Your task to perform on an android device: Clear the shopping cart on ebay.com. Add logitech g910 to the cart on ebay.com, then select checkout. Image 0: 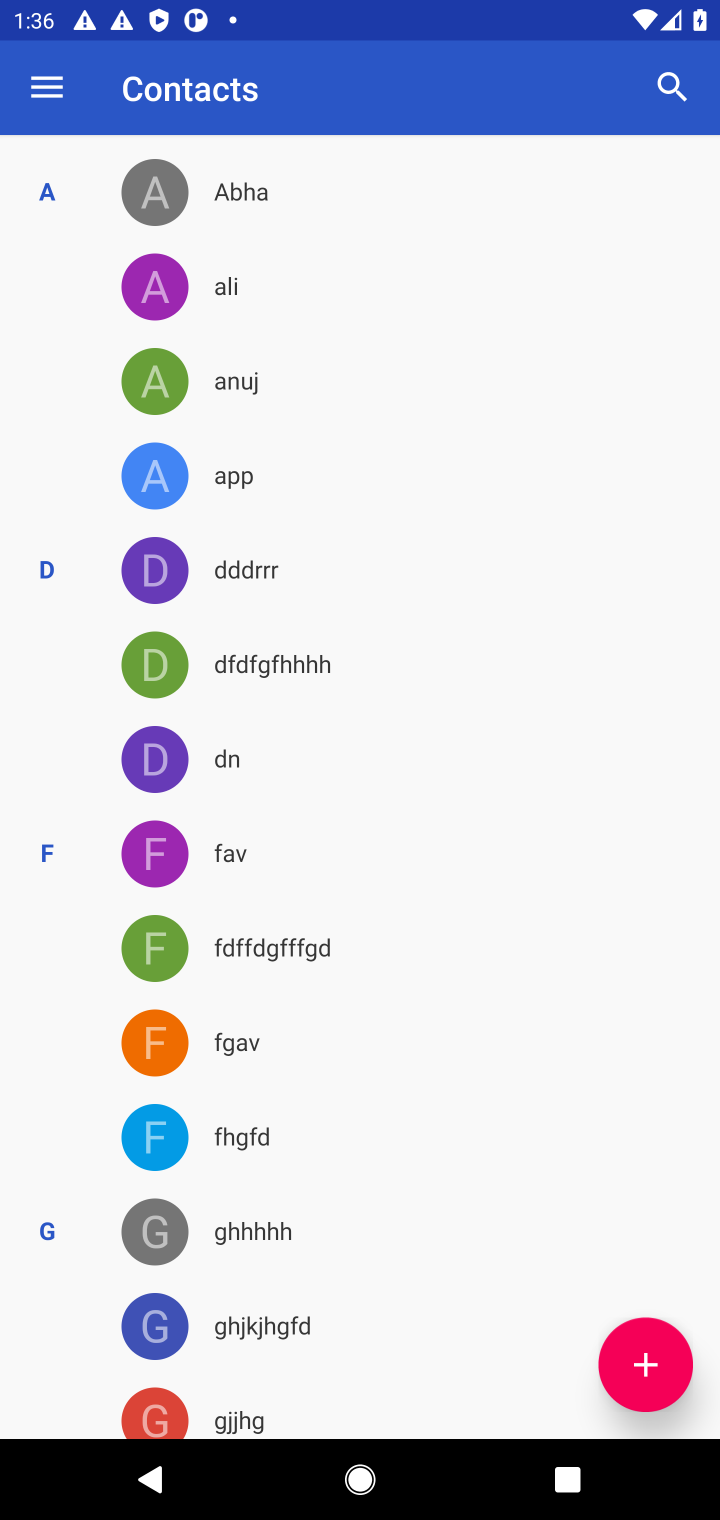
Step 0: press home button
Your task to perform on an android device: Clear the shopping cart on ebay.com. Add logitech g910 to the cart on ebay.com, then select checkout. Image 1: 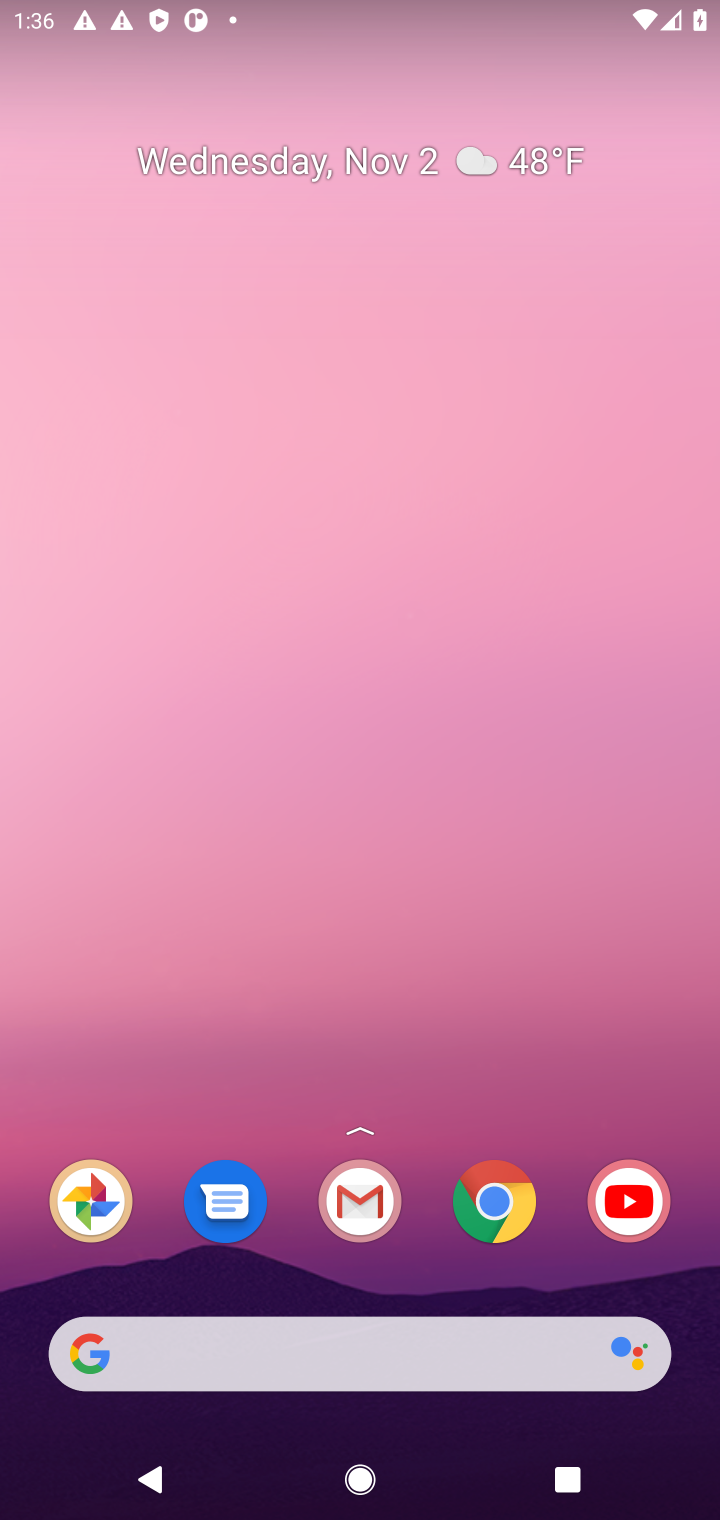
Step 1: click (512, 1202)
Your task to perform on an android device: Clear the shopping cart on ebay.com. Add logitech g910 to the cart on ebay.com, then select checkout. Image 2: 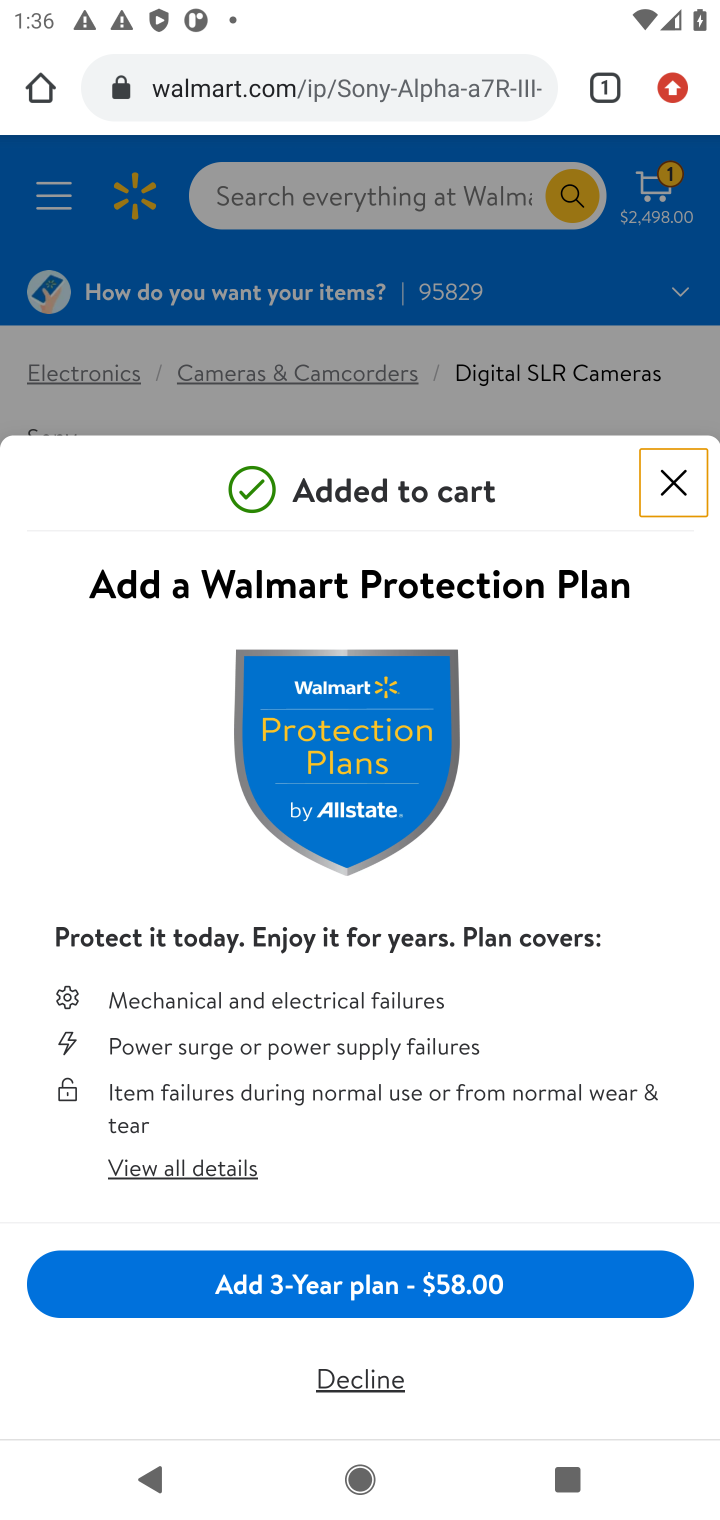
Step 2: click (477, 89)
Your task to perform on an android device: Clear the shopping cart on ebay.com. Add logitech g910 to the cart on ebay.com, then select checkout. Image 3: 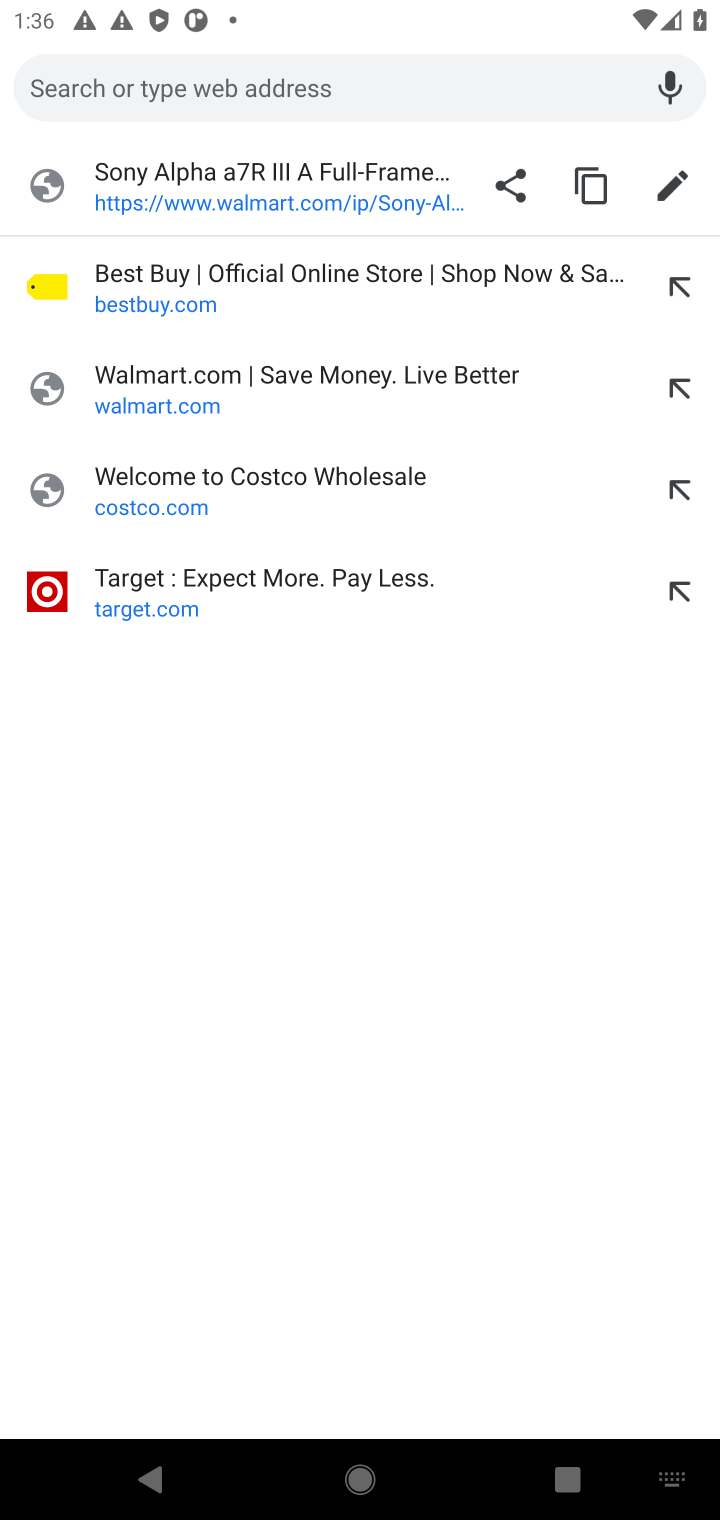
Step 3: type "ebay.com"
Your task to perform on an android device: Clear the shopping cart on ebay.com. Add logitech g910 to the cart on ebay.com, then select checkout. Image 4: 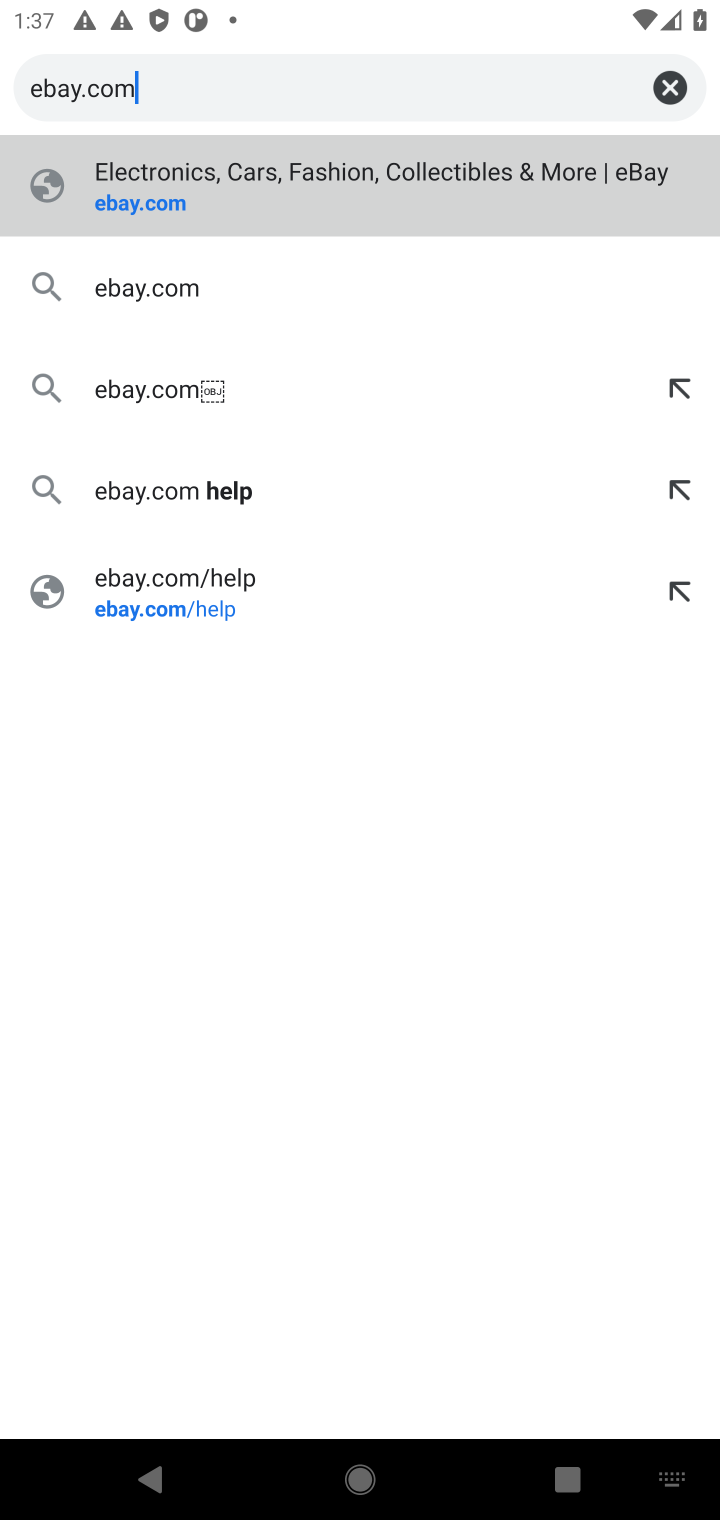
Step 4: click (154, 286)
Your task to perform on an android device: Clear the shopping cart on ebay.com. Add logitech g910 to the cart on ebay.com, then select checkout. Image 5: 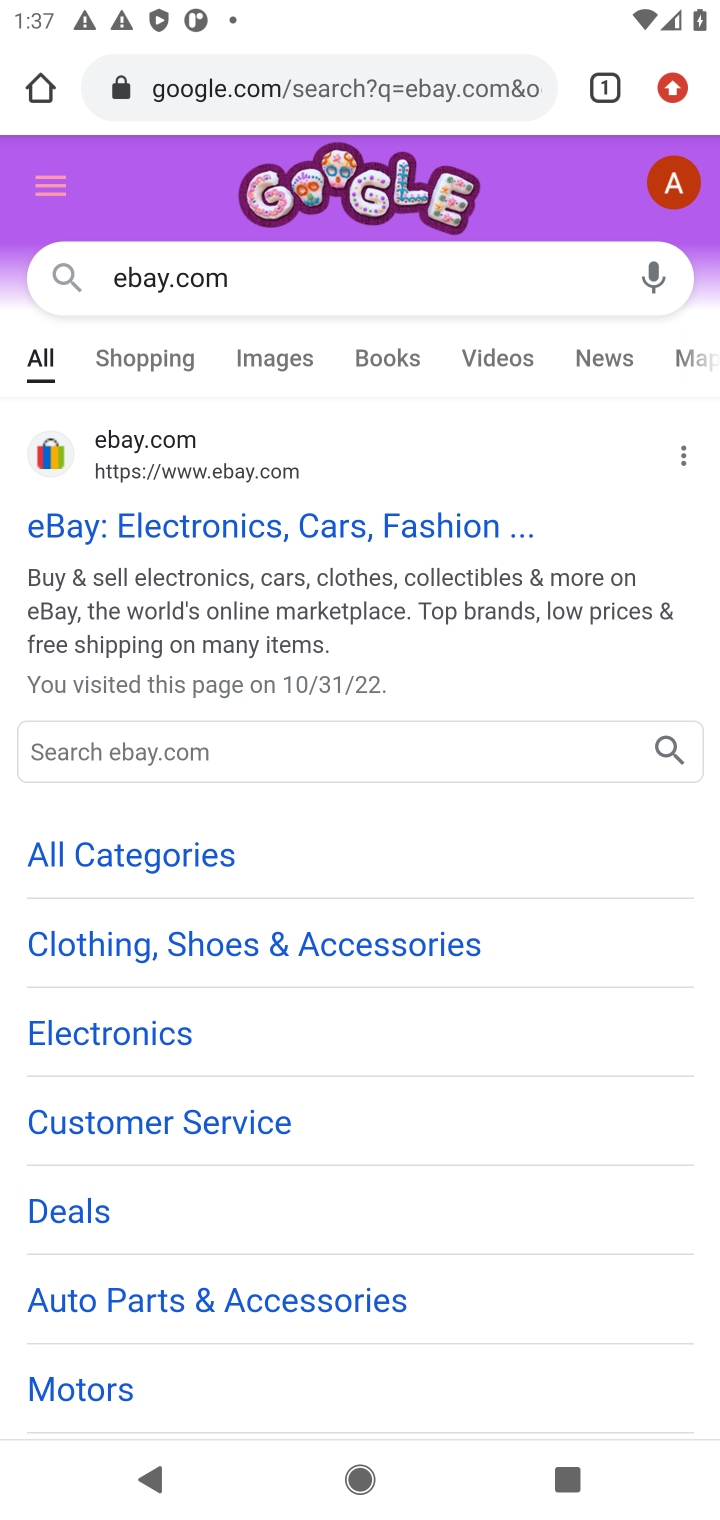
Step 5: click (164, 452)
Your task to perform on an android device: Clear the shopping cart on ebay.com. Add logitech g910 to the cart on ebay.com, then select checkout. Image 6: 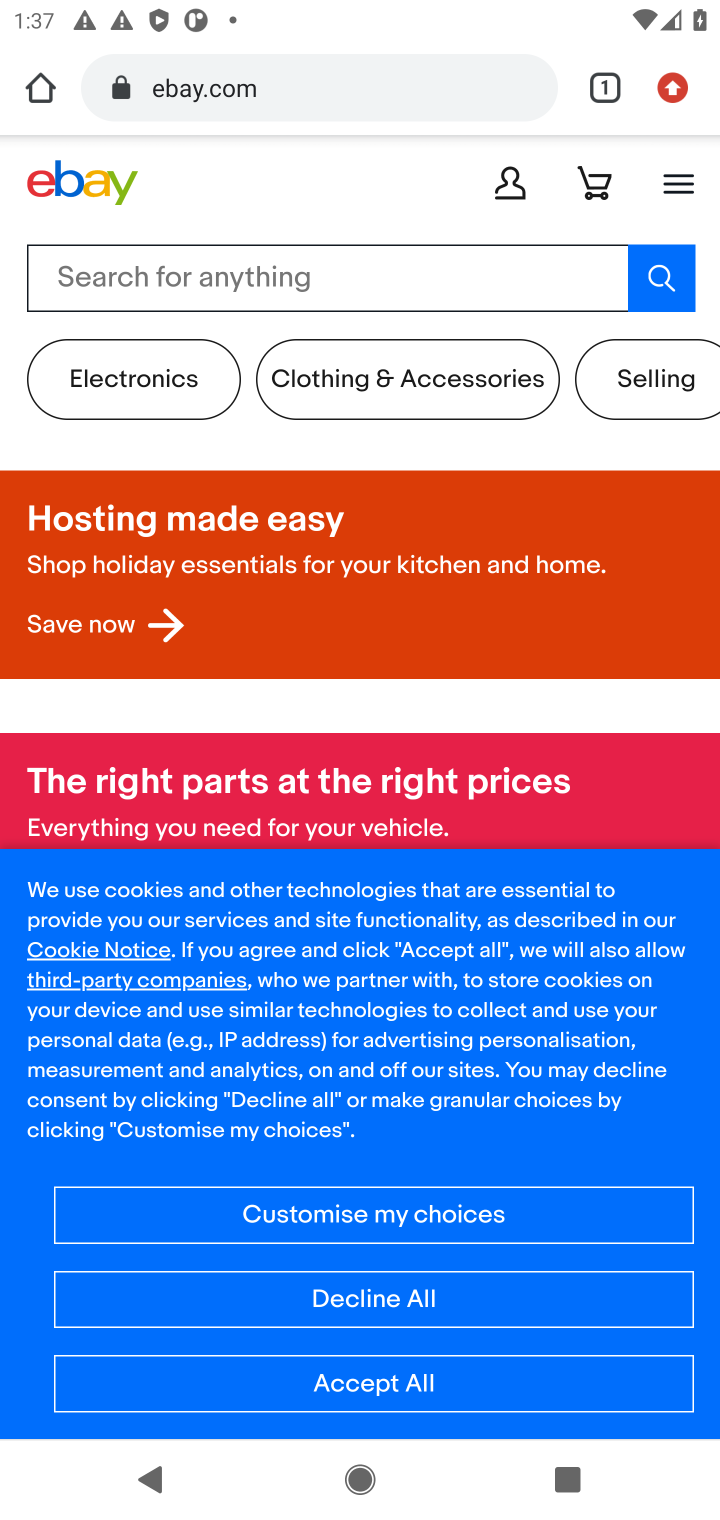
Step 6: click (355, 251)
Your task to perform on an android device: Clear the shopping cart on ebay.com. Add logitech g910 to the cart on ebay.com, then select checkout. Image 7: 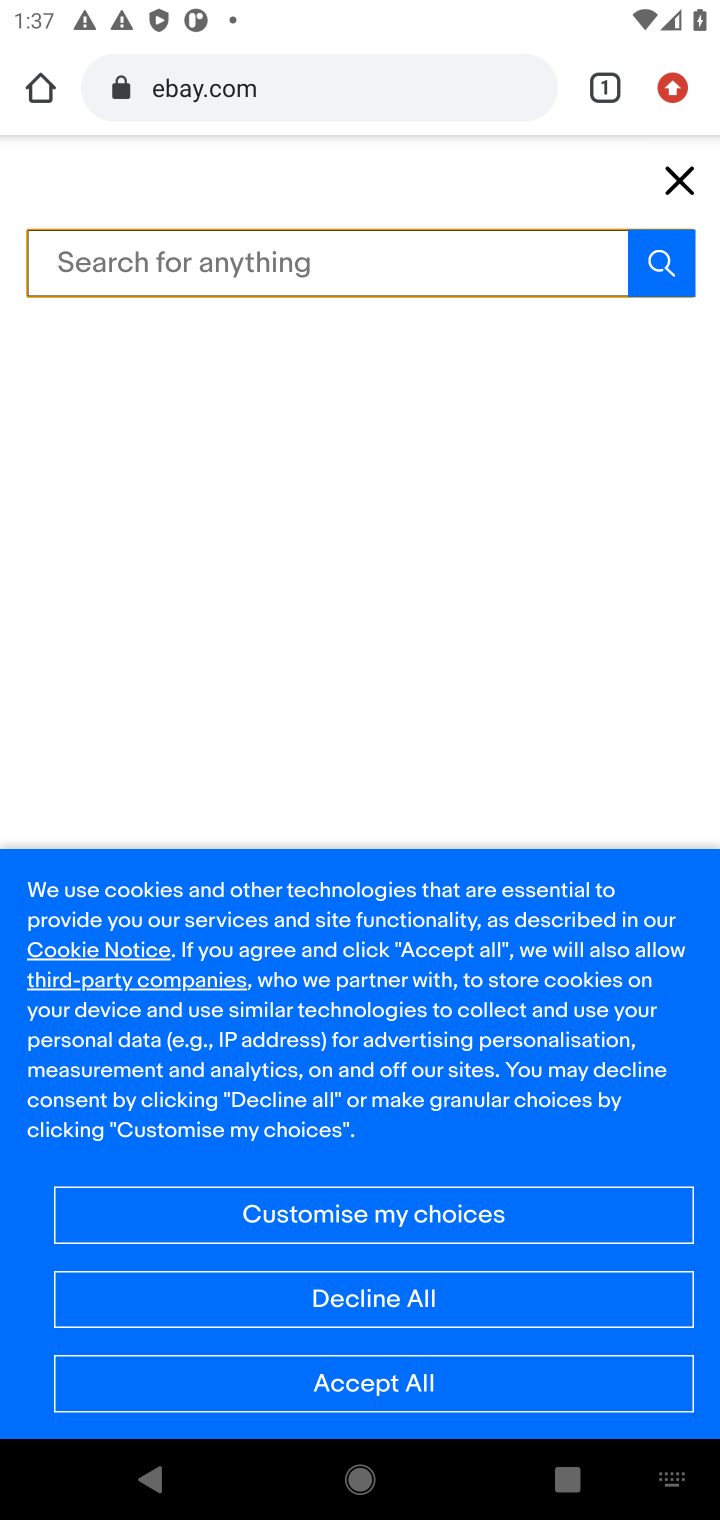
Step 7: type "logitech g910"
Your task to perform on an android device: Clear the shopping cart on ebay.com. Add logitech g910 to the cart on ebay.com, then select checkout. Image 8: 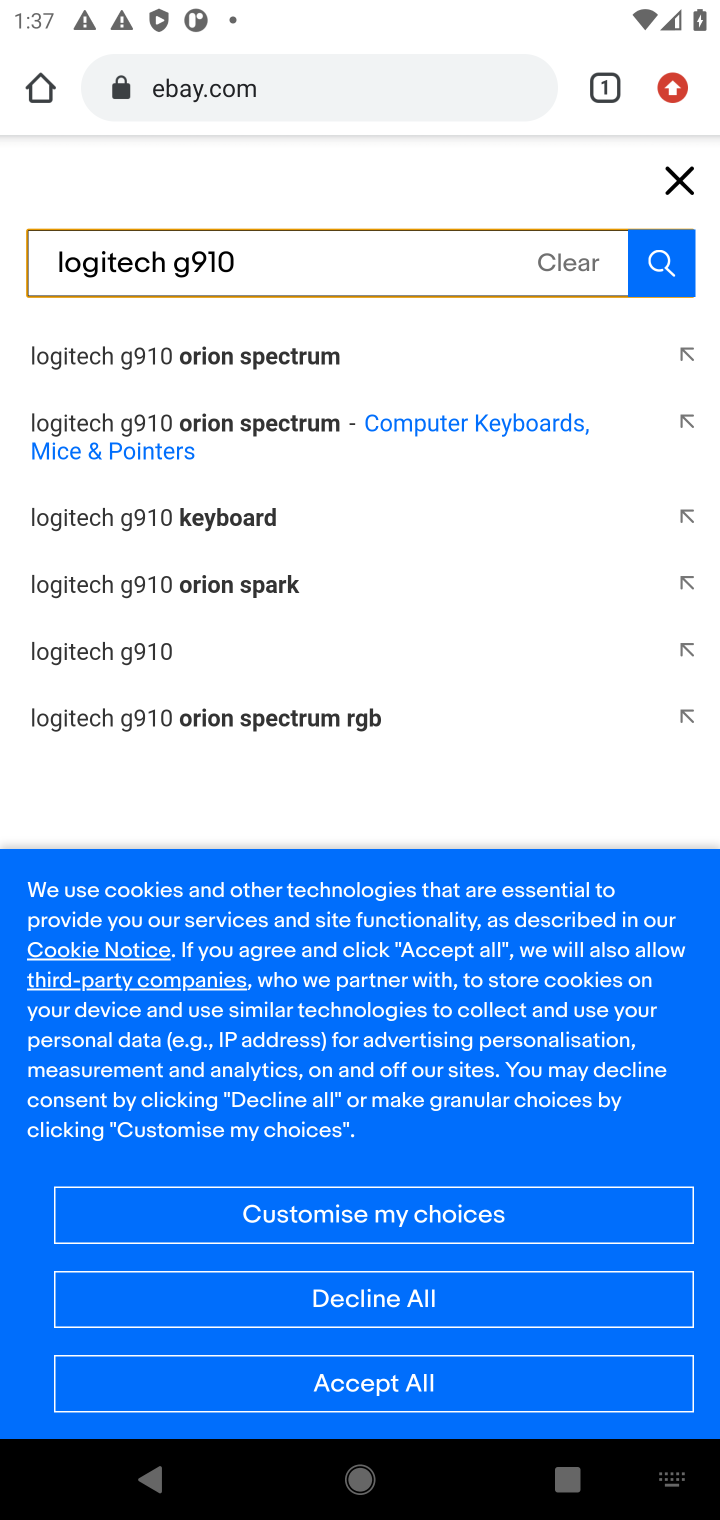
Step 8: click (88, 647)
Your task to perform on an android device: Clear the shopping cart on ebay.com. Add logitech g910 to the cart on ebay.com, then select checkout. Image 9: 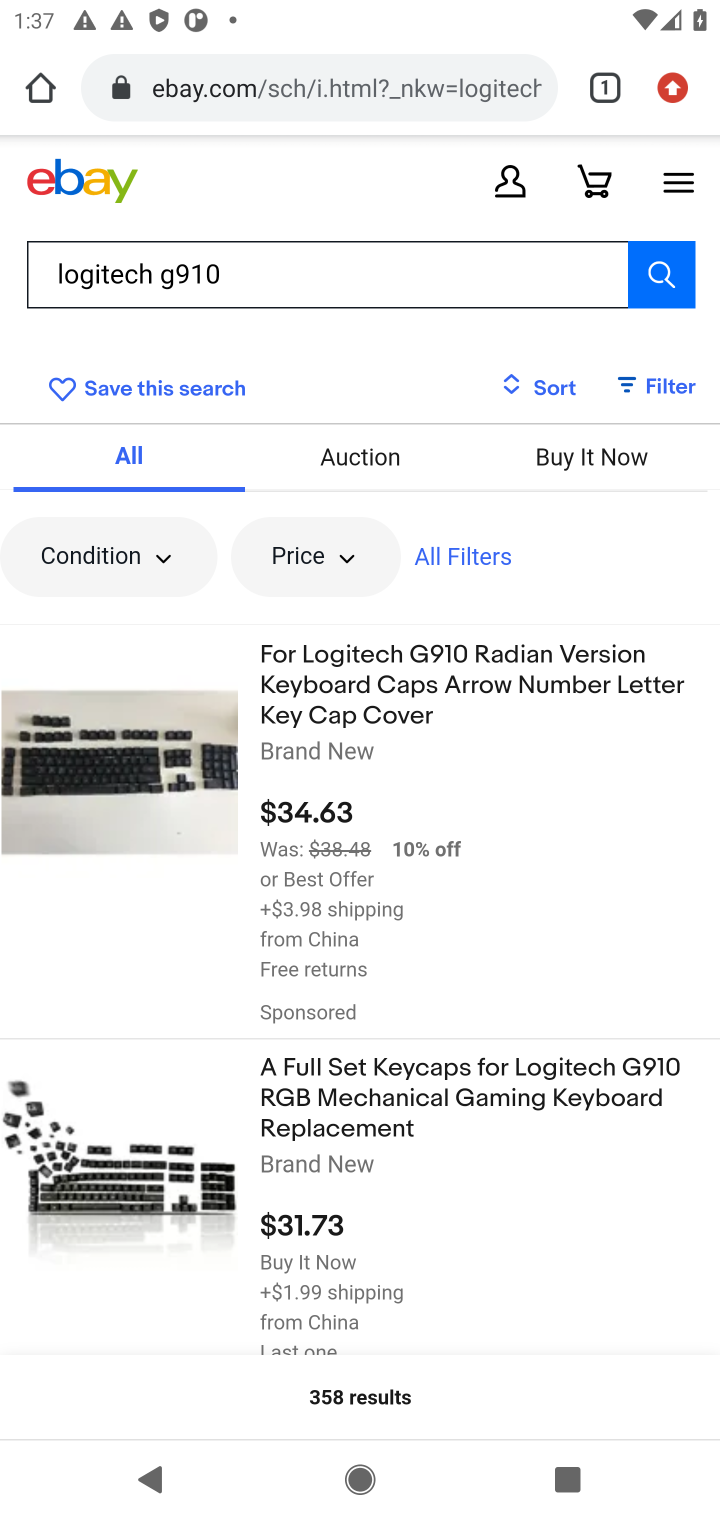
Step 9: click (159, 756)
Your task to perform on an android device: Clear the shopping cart on ebay.com. Add logitech g910 to the cart on ebay.com, then select checkout. Image 10: 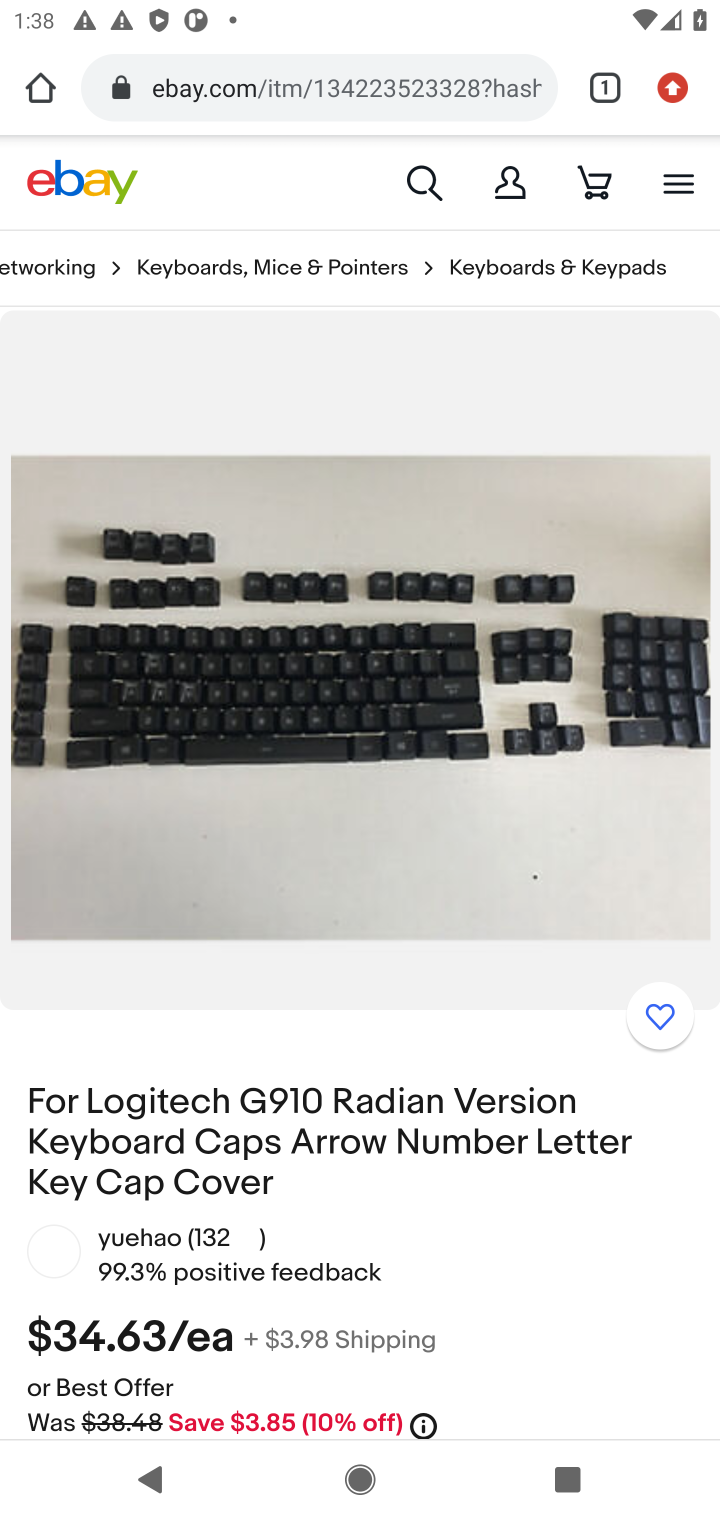
Step 10: drag from (490, 987) to (394, 372)
Your task to perform on an android device: Clear the shopping cart on ebay.com. Add logitech g910 to the cart on ebay.com, then select checkout. Image 11: 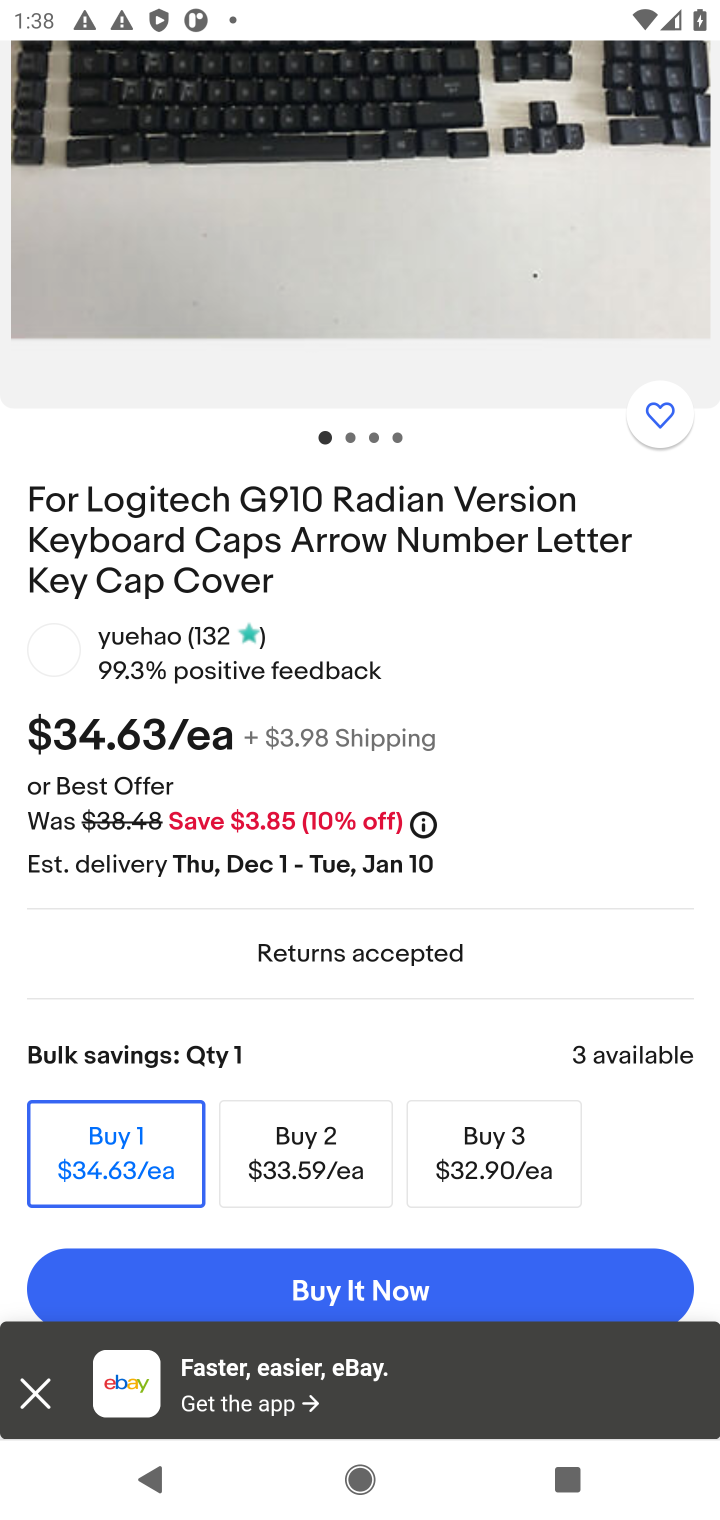
Step 11: drag from (450, 976) to (434, 529)
Your task to perform on an android device: Clear the shopping cart on ebay.com. Add logitech g910 to the cart on ebay.com, then select checkout. Image 12: 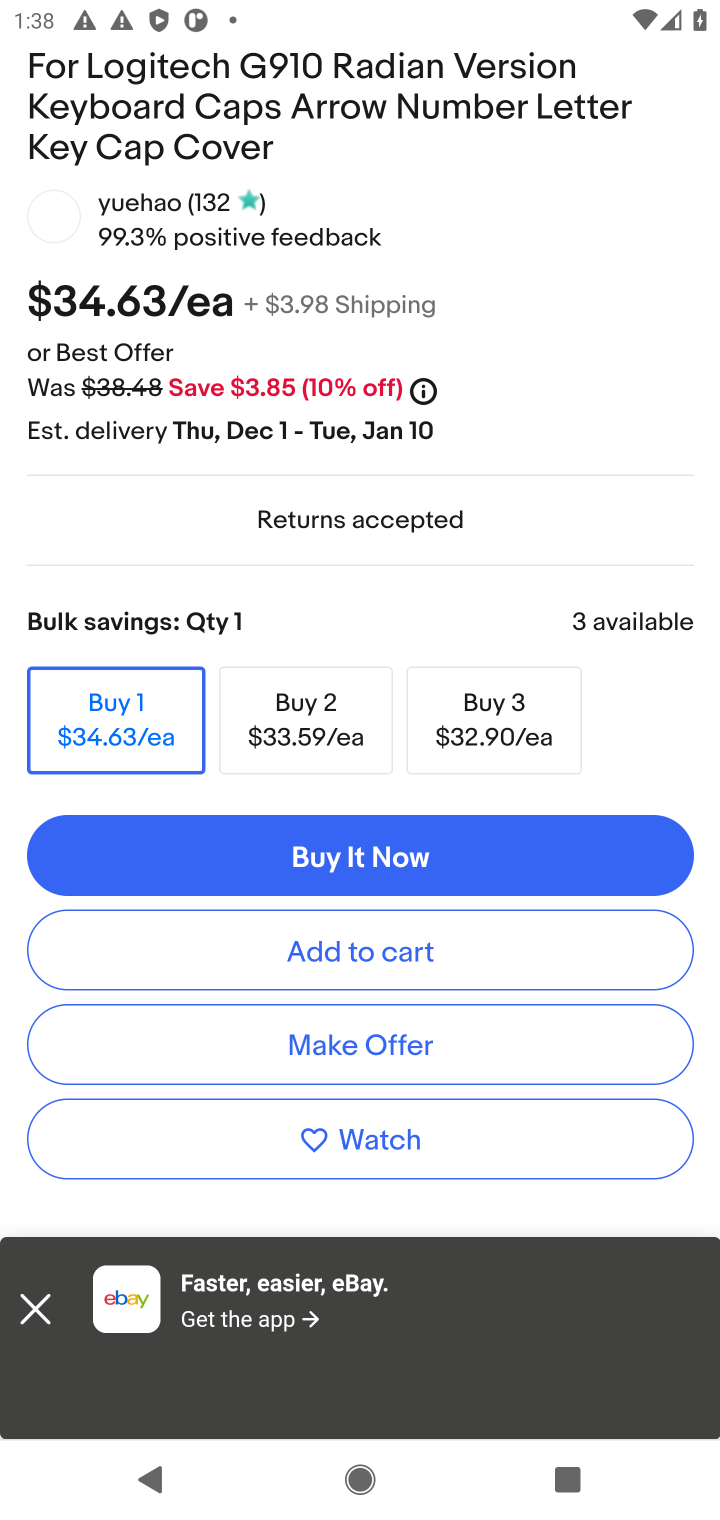
Step 12: click (510, 957)
Your task to perform on an android device: Clear the shopping cart on ebay.com. Add logitech g910 to the cart on ebay.com, then select checkout. Image 13: 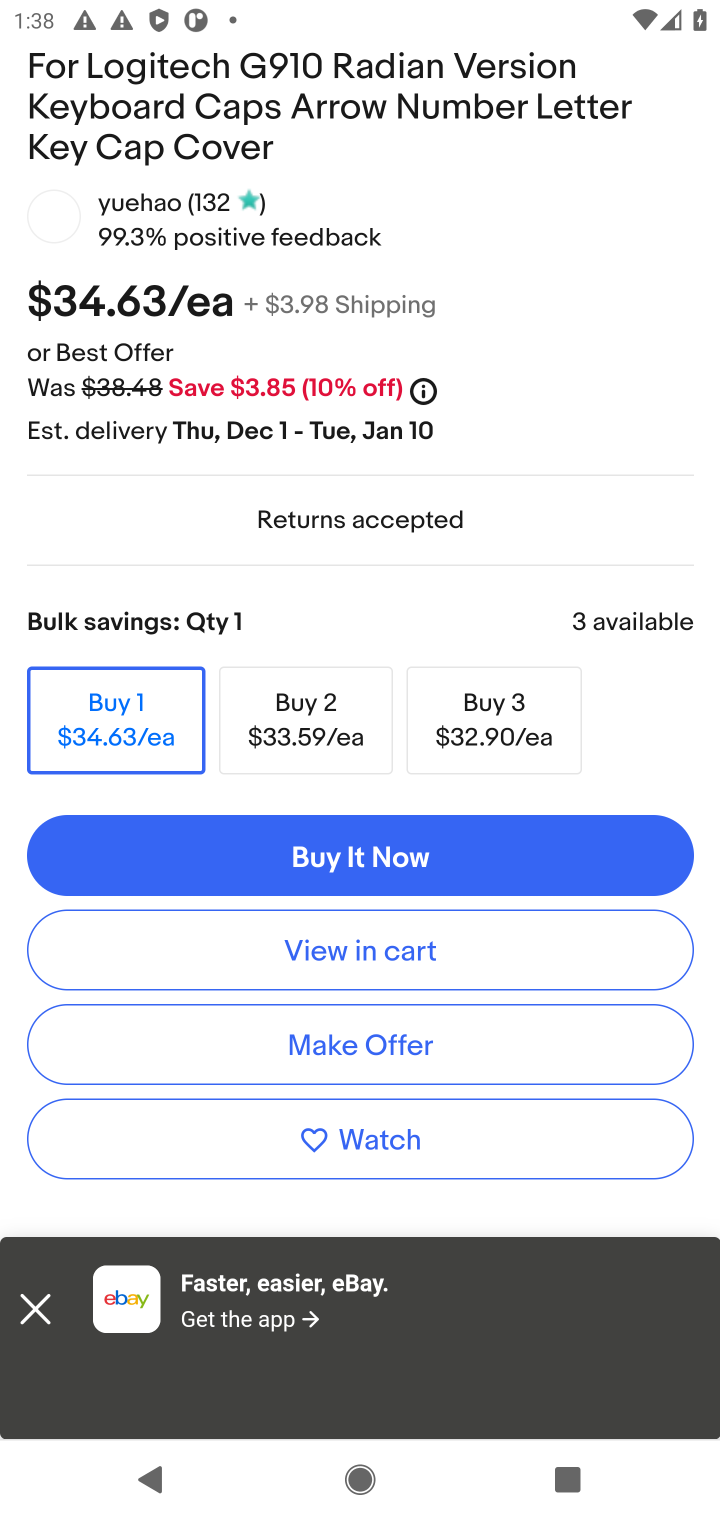
Step 13: click (393, 948)
Your task to perform on an android device: Clear the shopping cart on ebay.com. Add logitech g910 to the cart on ebay.com, then select checkout. Image 14: 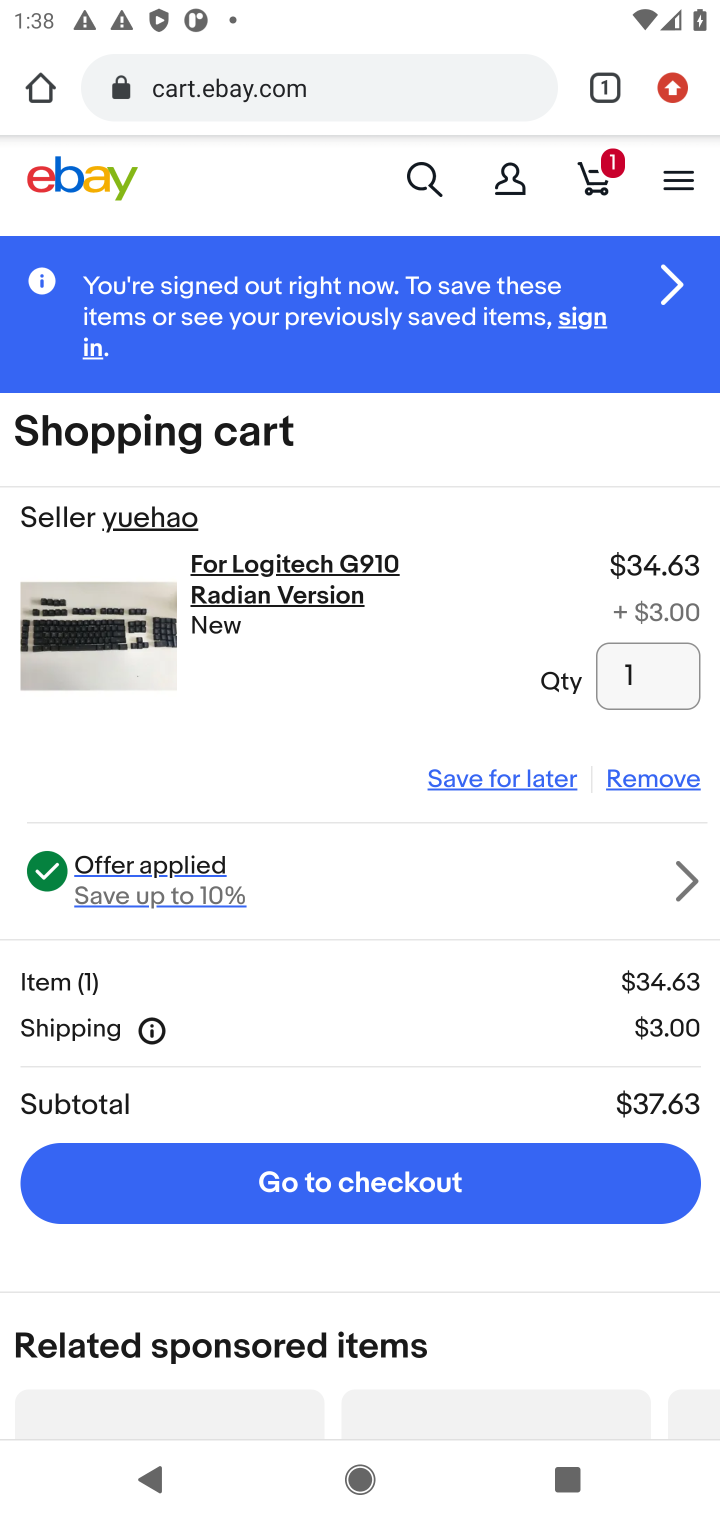
Step 14: click (409, 1189)
Your task to perform on an android device: Clear the shopping cart on ebay.com. Add logitech g910 to the cart on ebay.com, then select checkout. Image 15: 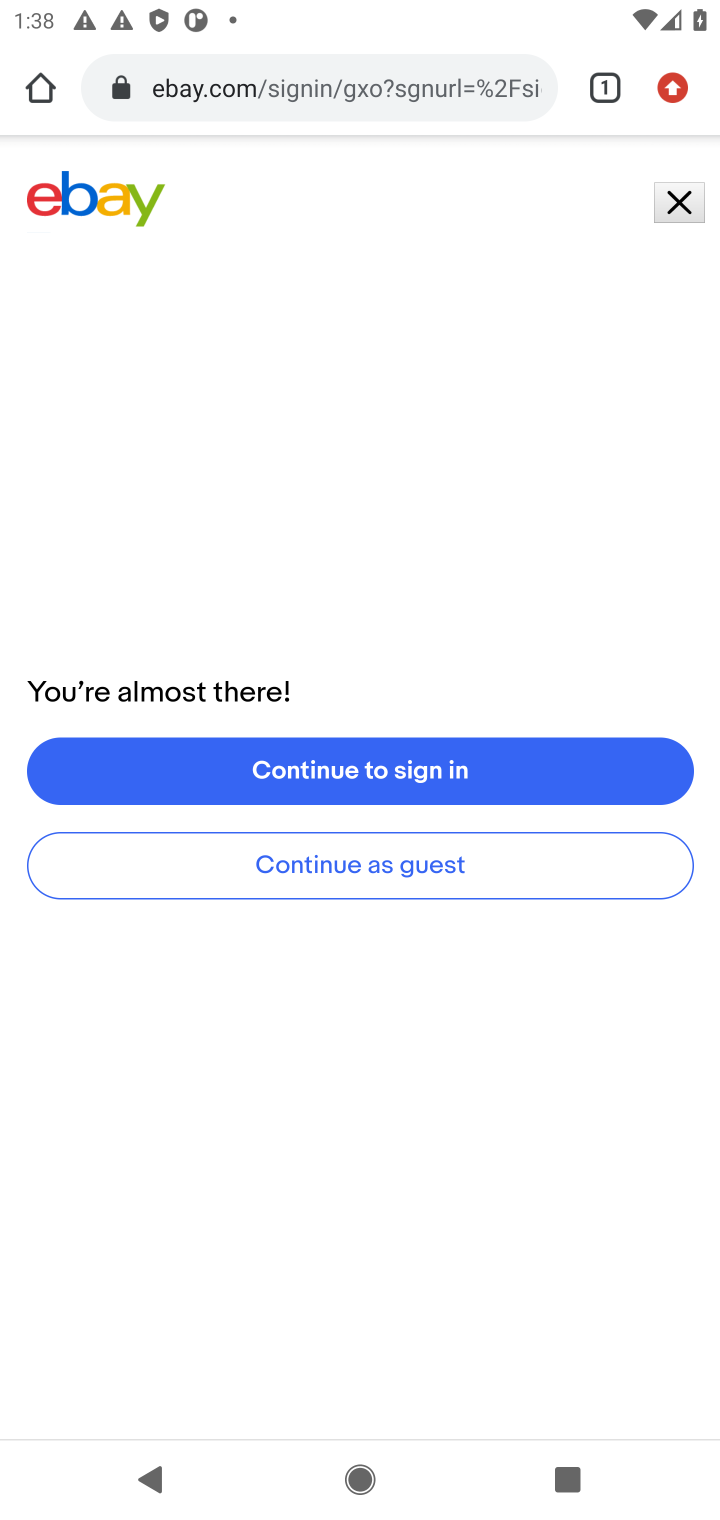
Step 15: click (680, 201)
Your task to perform on an android device: Clear the shopping cart on ebay.com. Add logitech g910 to the cart on ebay.com, then select checkout. Image 16: 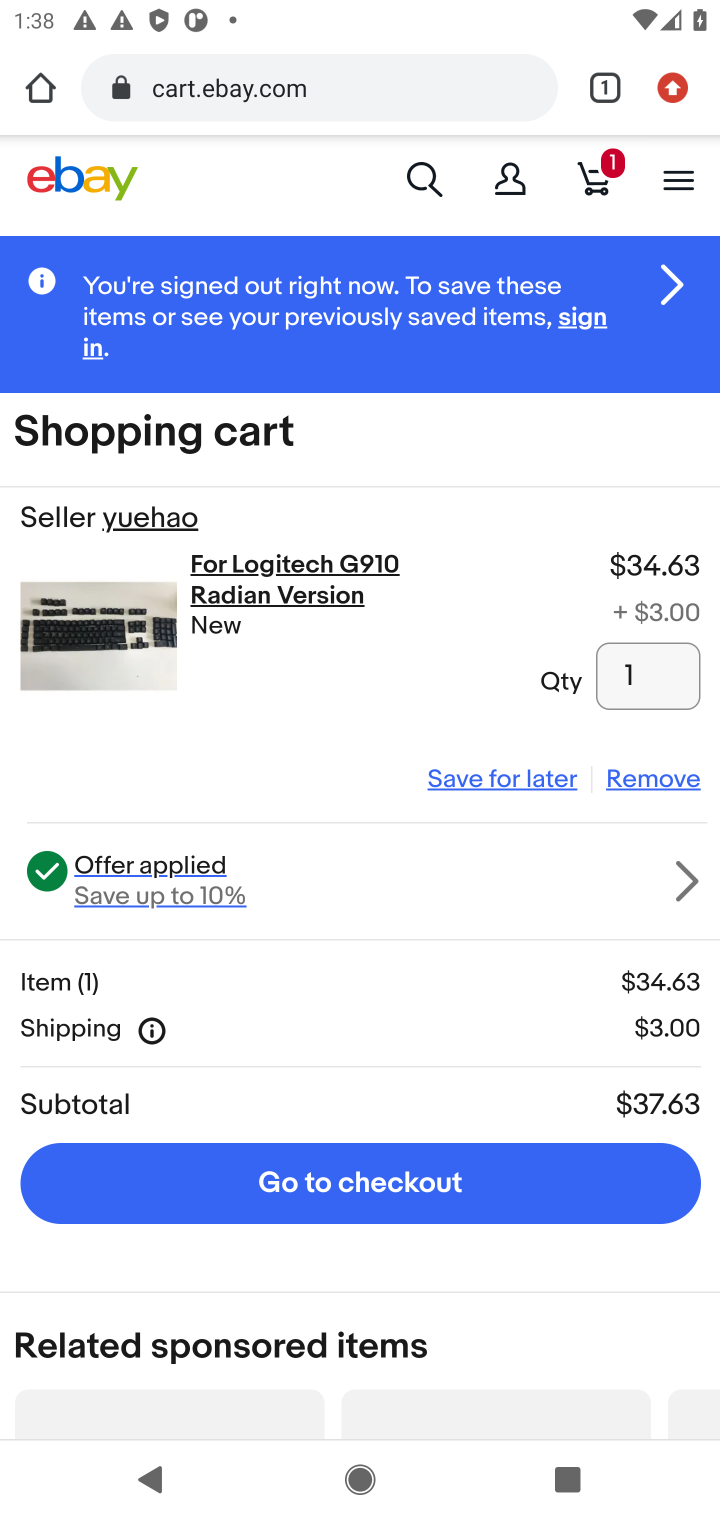
Step 16: click (385, 1174)
Your task to perform on an android device: Clear the shopping cart on ebay.com. Add logitech g910 to the cart on ebay.com, then select checkout. Image 17: 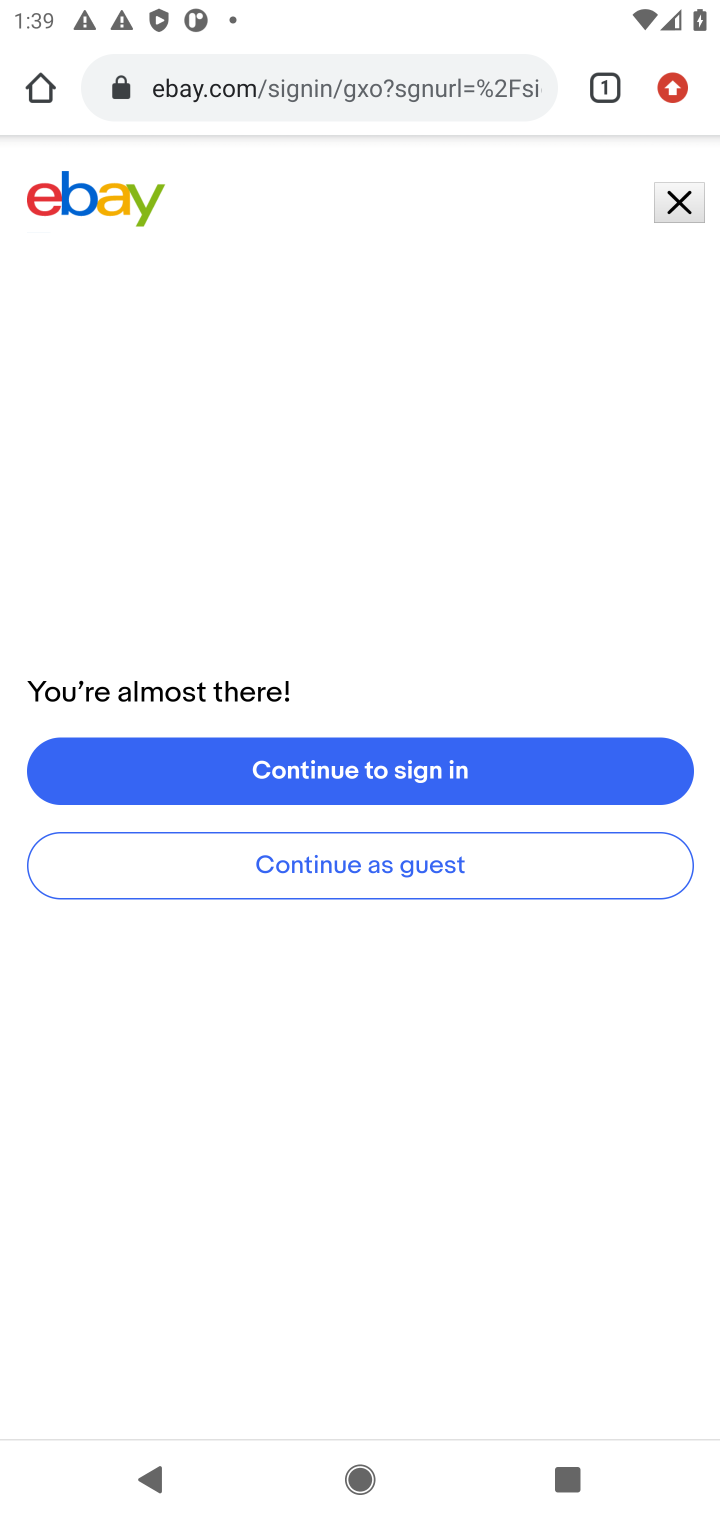
Step 17: task complete